Your task to perform on an android device: Do I have any events today? Image 0: 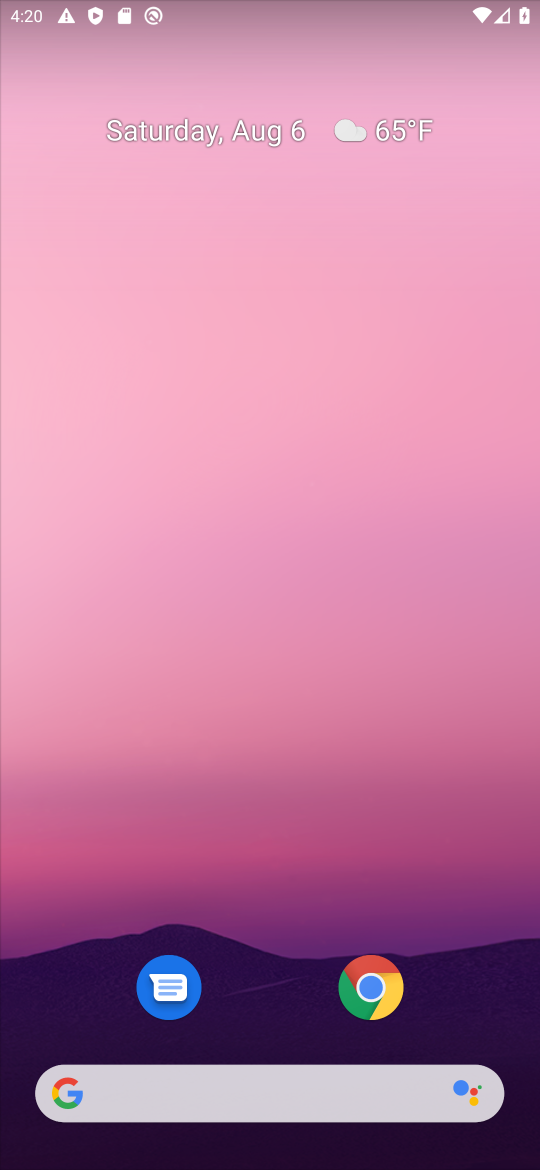
Step 0: drag from (298, 1001) to (529, 880)
Your task to perform on an android device: Do I have any events today? Image 1: 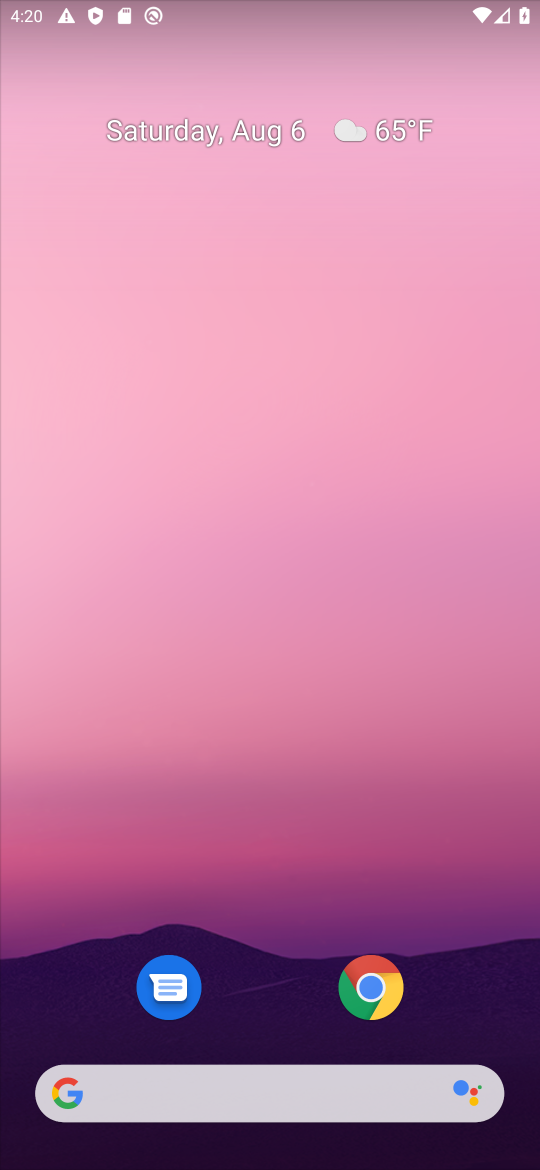
Step 1: drag from (234, 975) to (248, 44)
Your task to perform on an android device: Do I have any events today? Image 2: 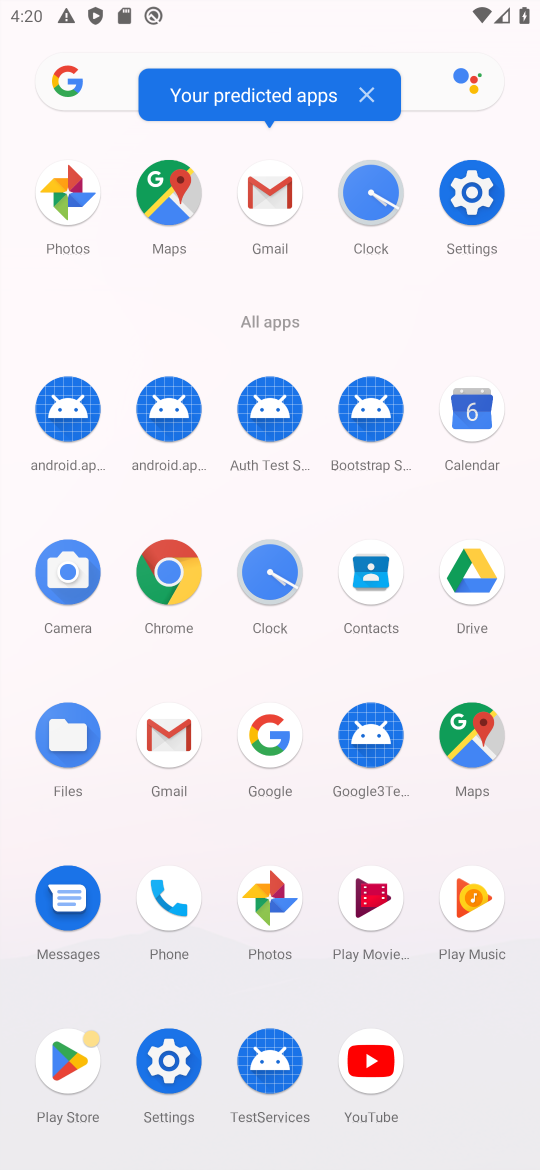
Step 2: click (484, 427)
Your task to perform on an android device: Do I have any events today? Image 3: 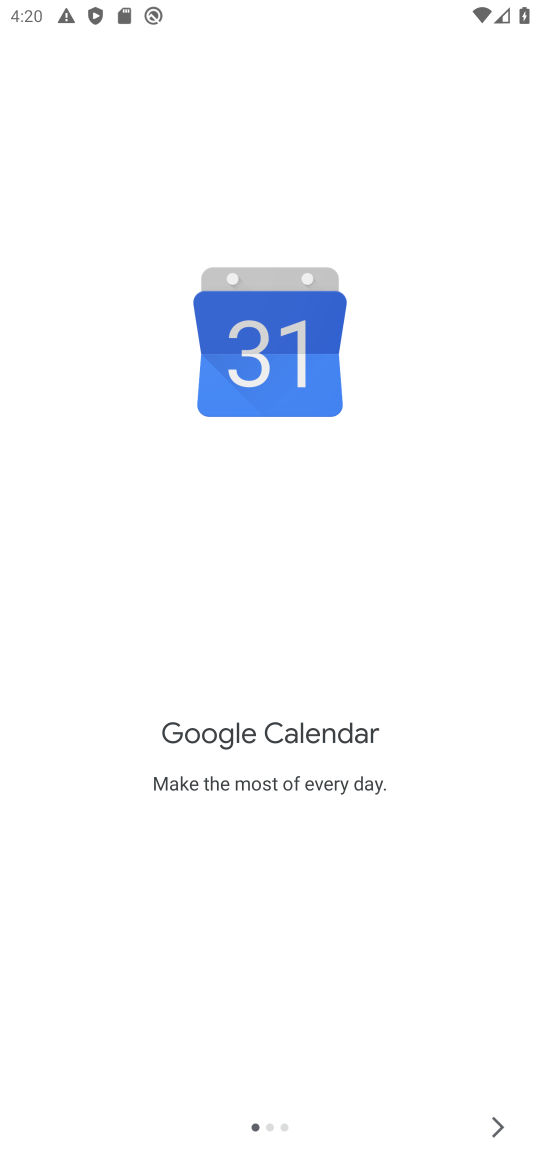
Step 3: click (495, 1122)
Your task to perform on an android device: Do I have any events today? Image 4: 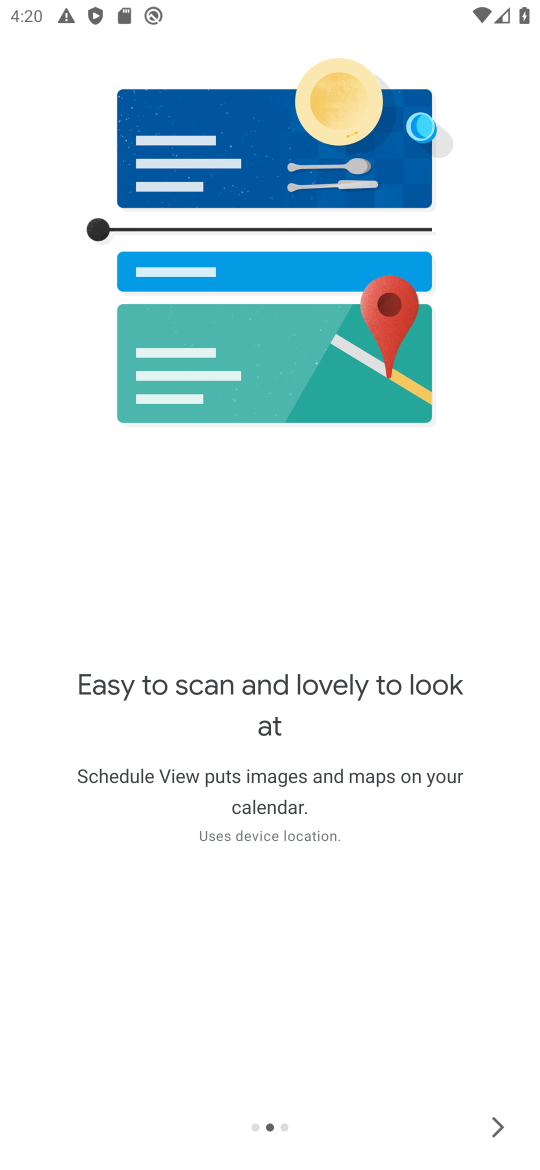
Step 4: click (499, 1125)
Your task to perform on an android device: Do I have any events today? Image 5: 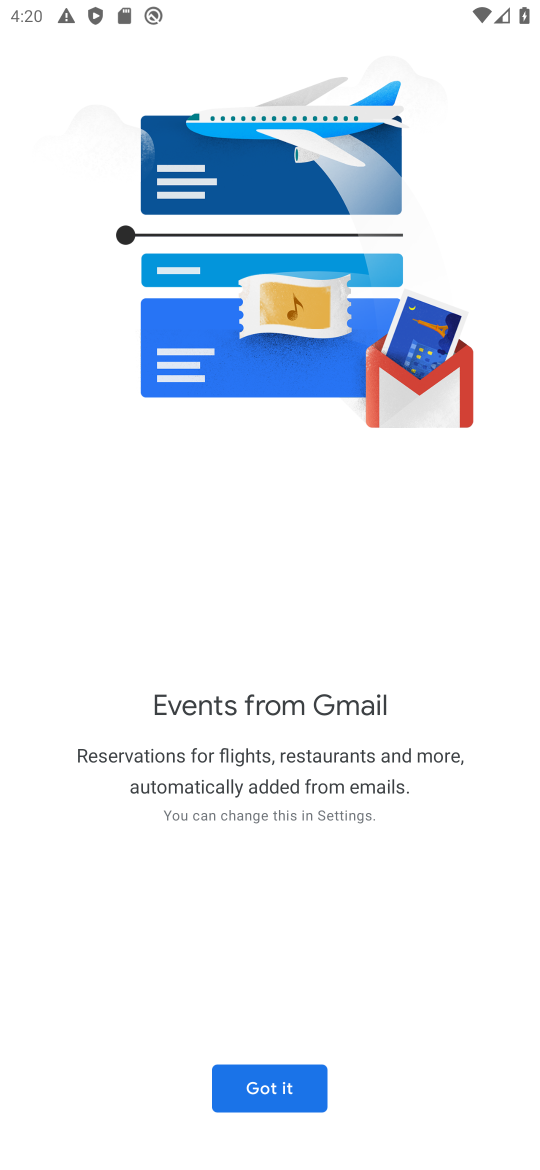
Step 5: click (305, 1094)
Your task to perform on an android device: Do I have any events today? Image 6: 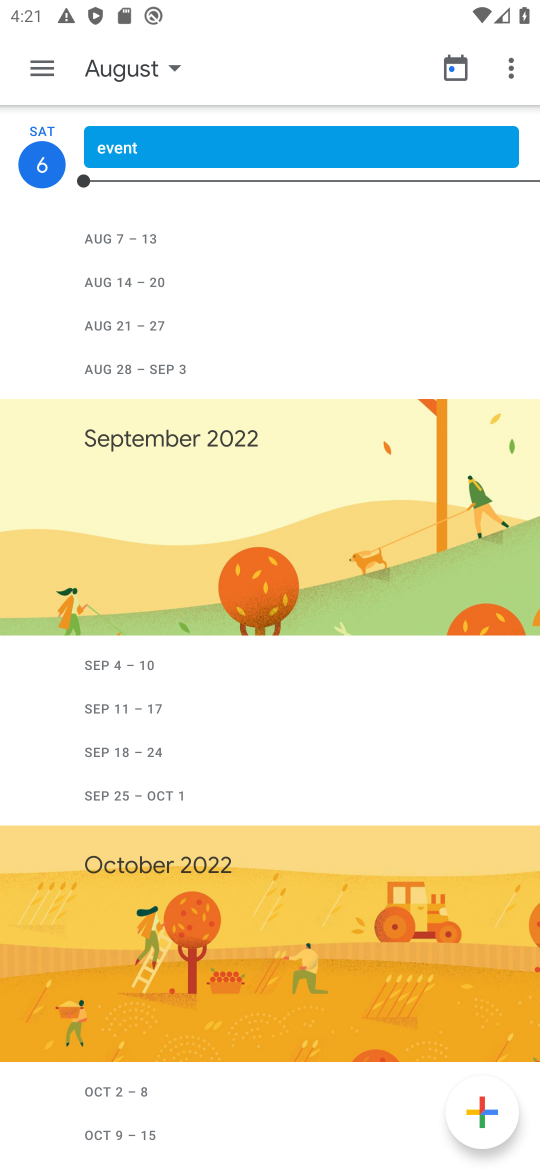
Step 6: drag from (193, 379) to (204, 1020)
Your task to perform on an android device: Do I have any events today? Image 7: 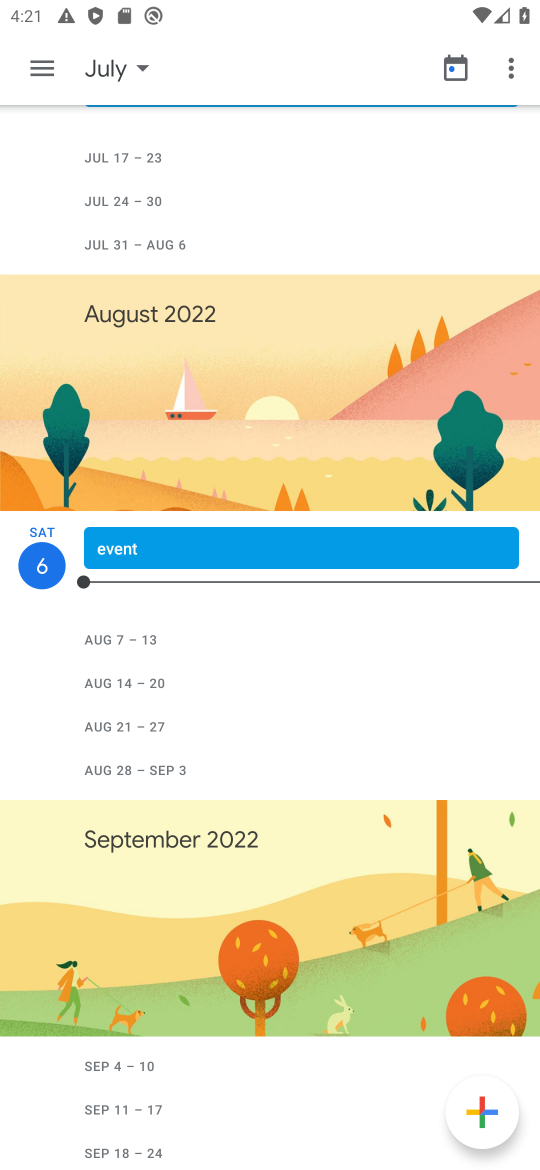
Step 7: drag from (160, 621) to (216, 265)
Your task to perform on an android device: Do I have any events today? Image 8: 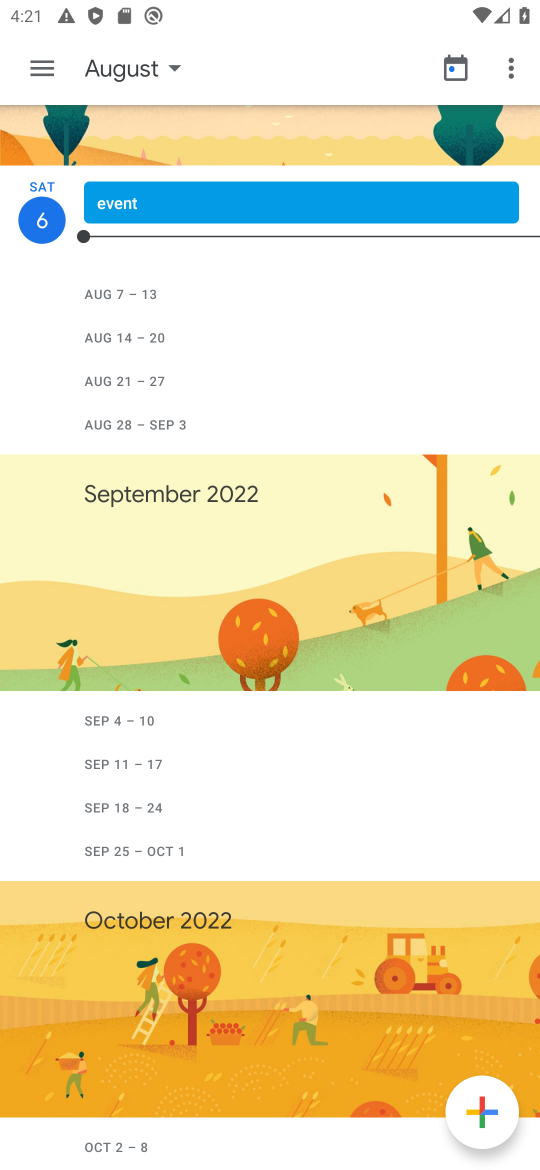
Step 8: click (35, 56)
Your task to perform on an android device: Do I have any events today? Image 9: 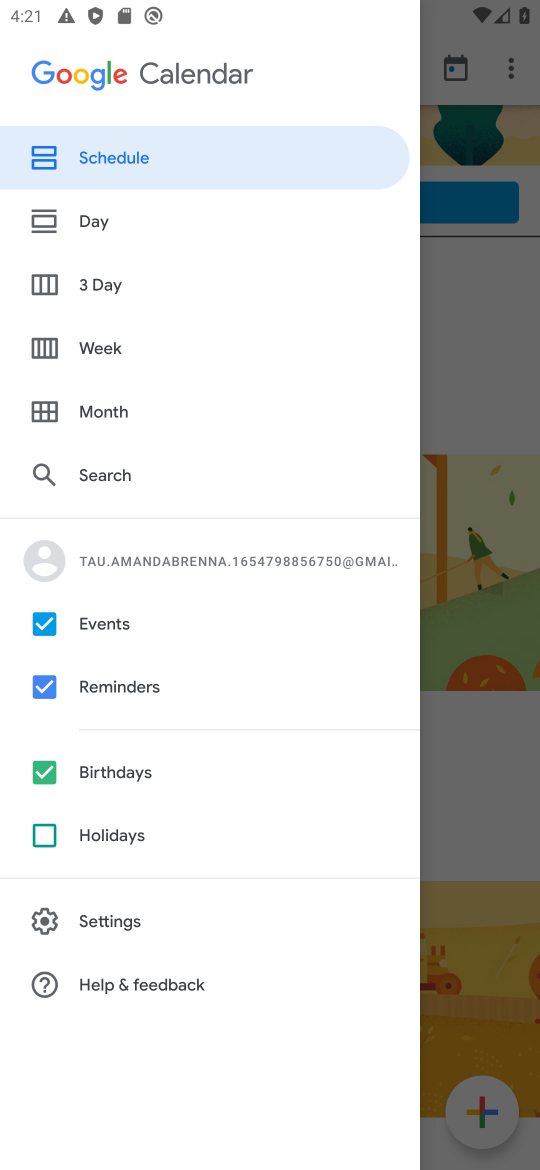
Step 9: click (120, 765)
Your task to perform on an android device: Do I have any events today? Image 10: 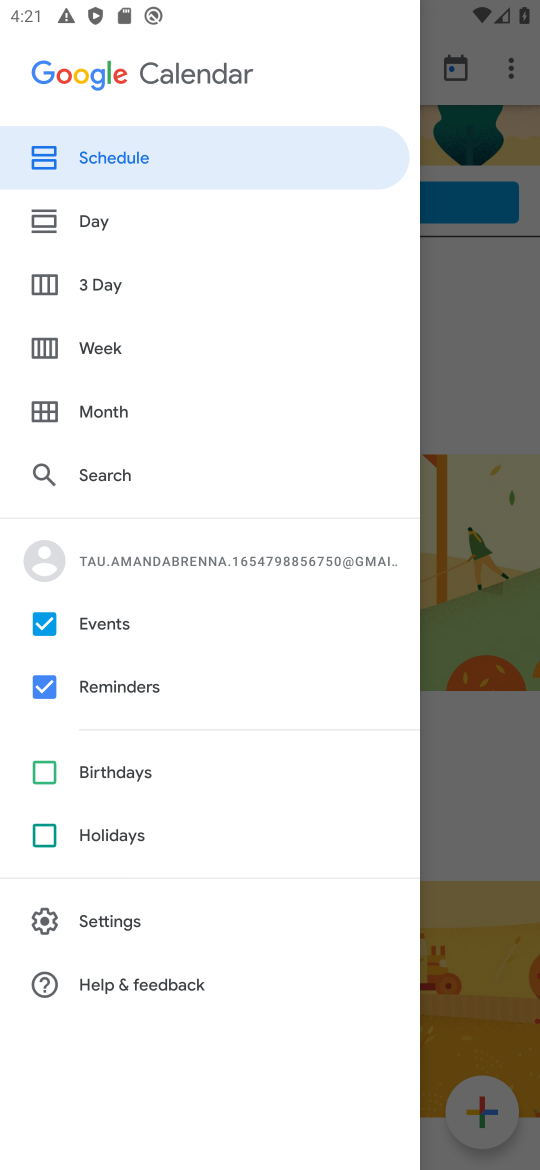
Step 10: click (112, 683)
Your task to perform on an android device: Do I have any events today? Image 11: 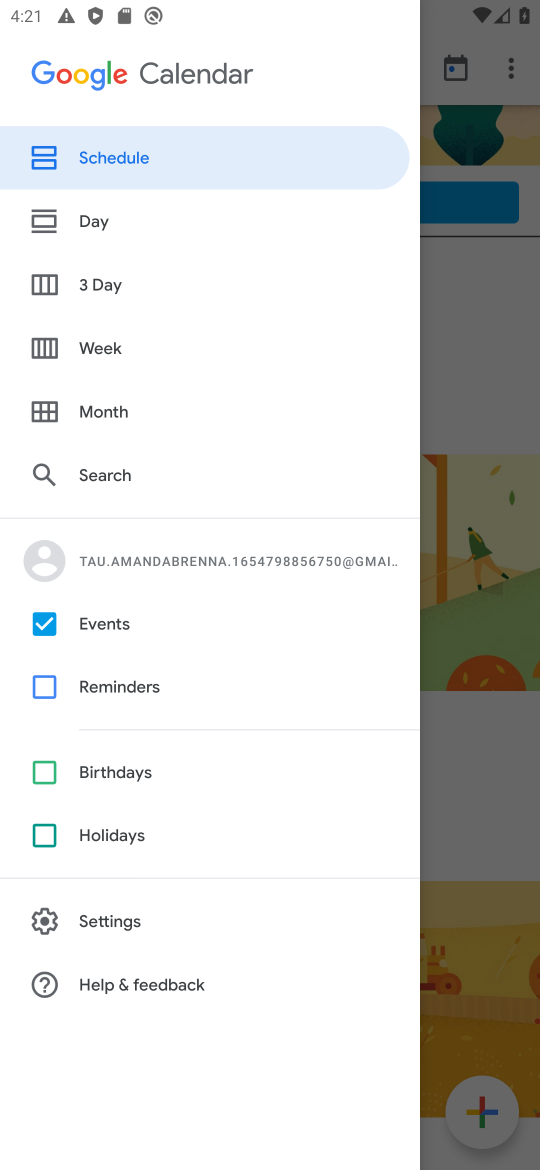
Step 11: click (103, 225)
Your task to perform on an android device: Do I have any events today? Image 12: 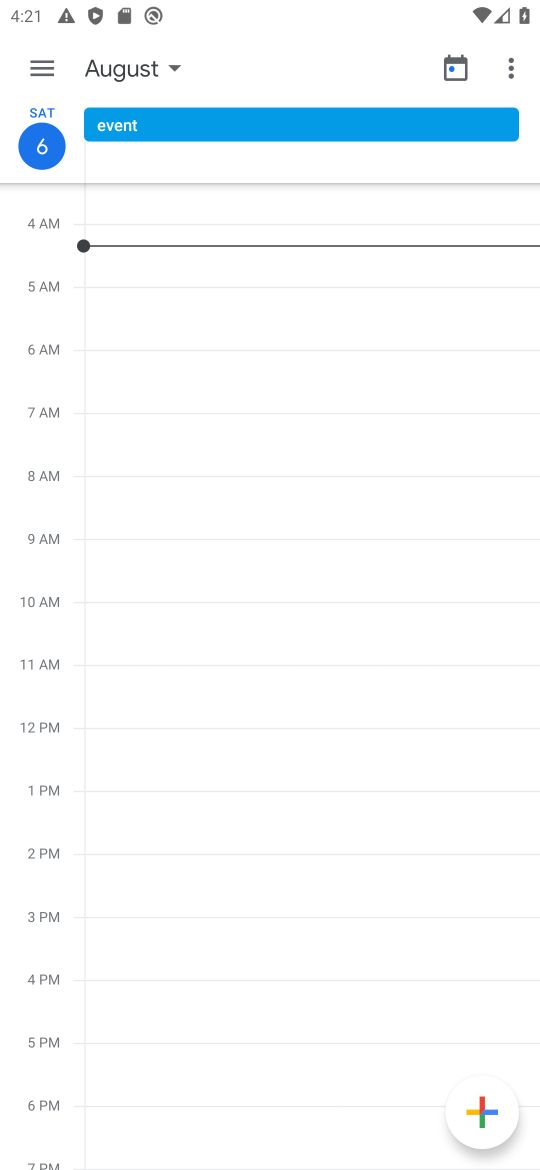
Step 12: task complete